Your task to perform on an android device: show emergency info Image 0: 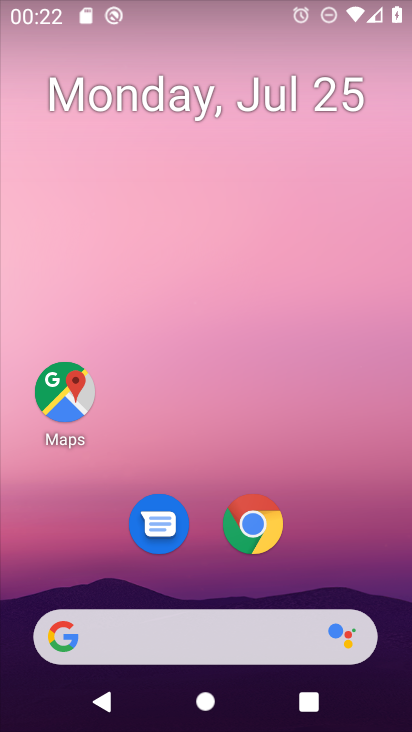
Step 0: press home button
Your task to perform on an android device: show emergency info Image 1: 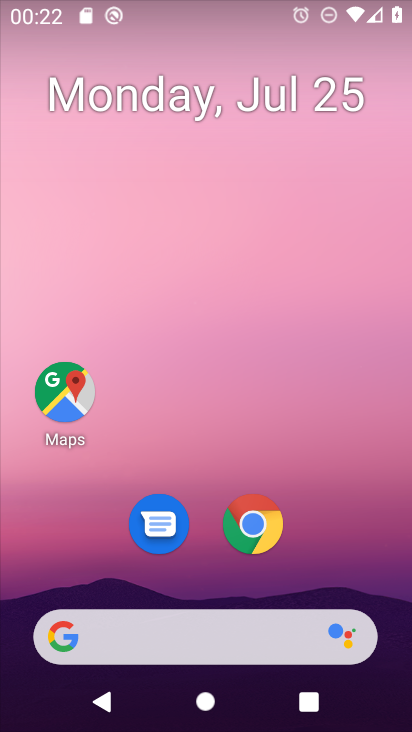
Step 1: drag from (215, 649) to (350, 69)
Your task to perform on an android device: show emergency info Image 2: 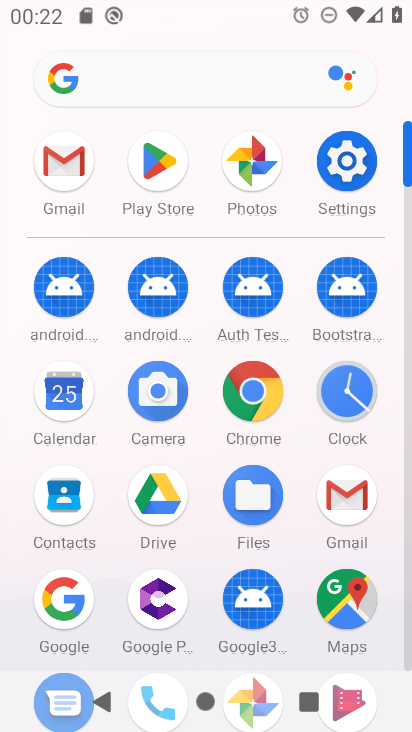
Step 2: click (338, 159)
Your task to perform on an android device: show emergency info Image 3: 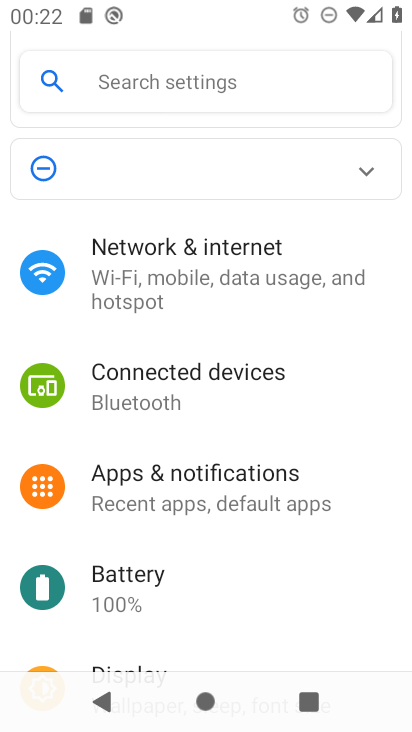
Step 3: drag from (222, 625) to (394, 134)
Your task to perform on an android device: show emergency info Image 4: 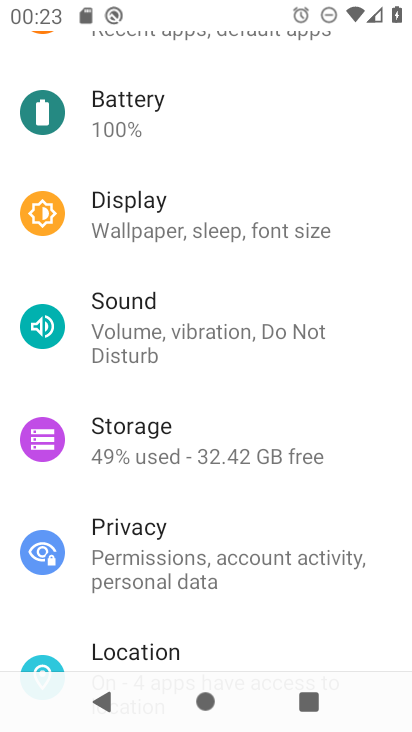
Step 4: drag from (252, 641) to (402, 225)
Your task to perform on an android device: show emergency info Image 5: 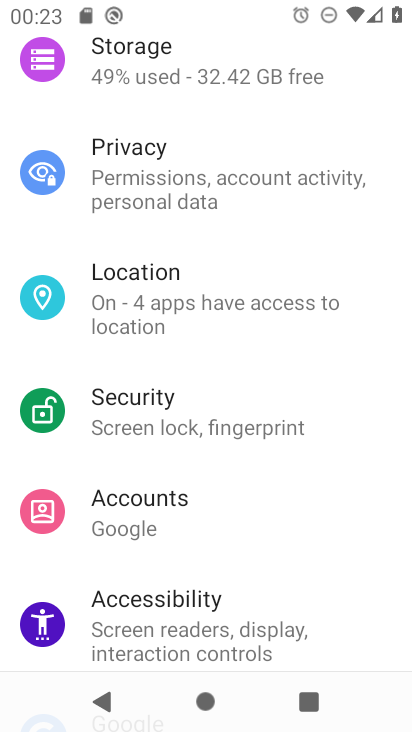
Step 5: drag from (260, 583) to (407, 112)
Your task to perform on an android device: show emergency info Image 6: 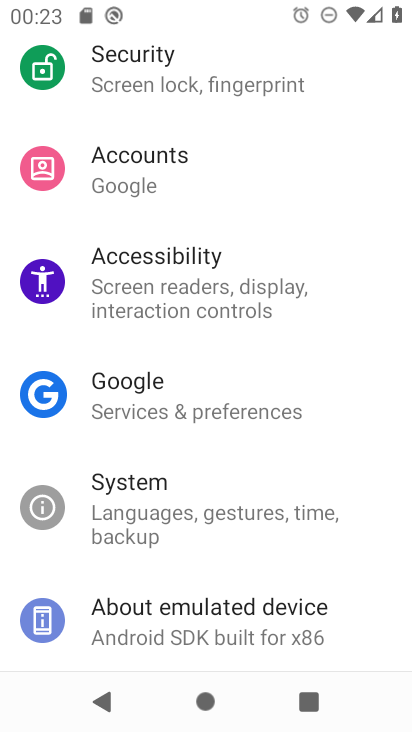
Step 6: click (188, 630)
Your task to perform on an android device: show emergency info Image 7: 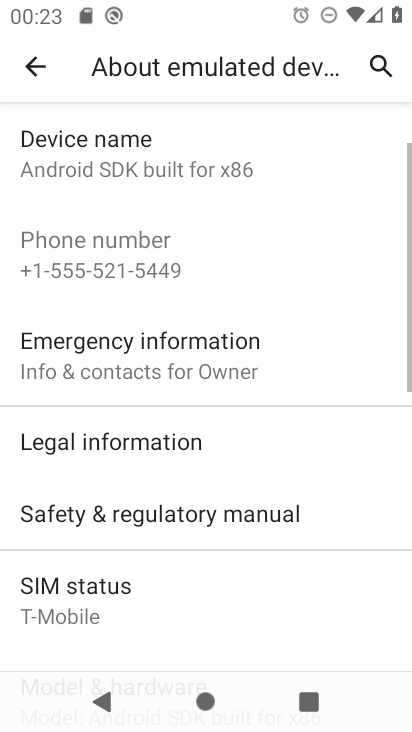
Step 7: click (169, 366)
Your task to perform on an android device: show emergency info Image 8: 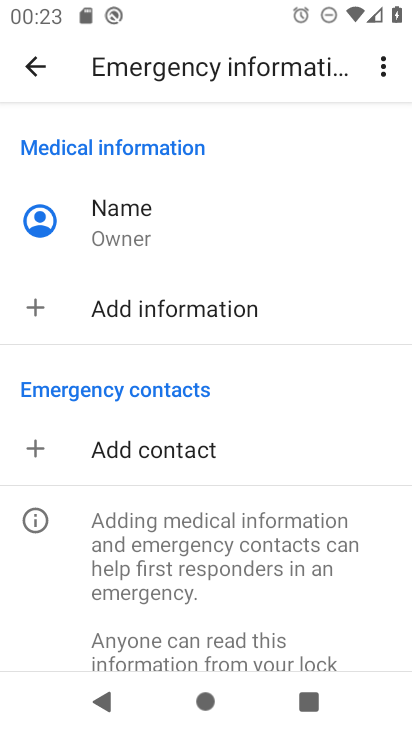
Step 8: task complete